Your task to perform on an android device: open app "Skype" (install if not already installed) and enter user name: "rumor@gmail.com" and password: "kinsman" Image 0: 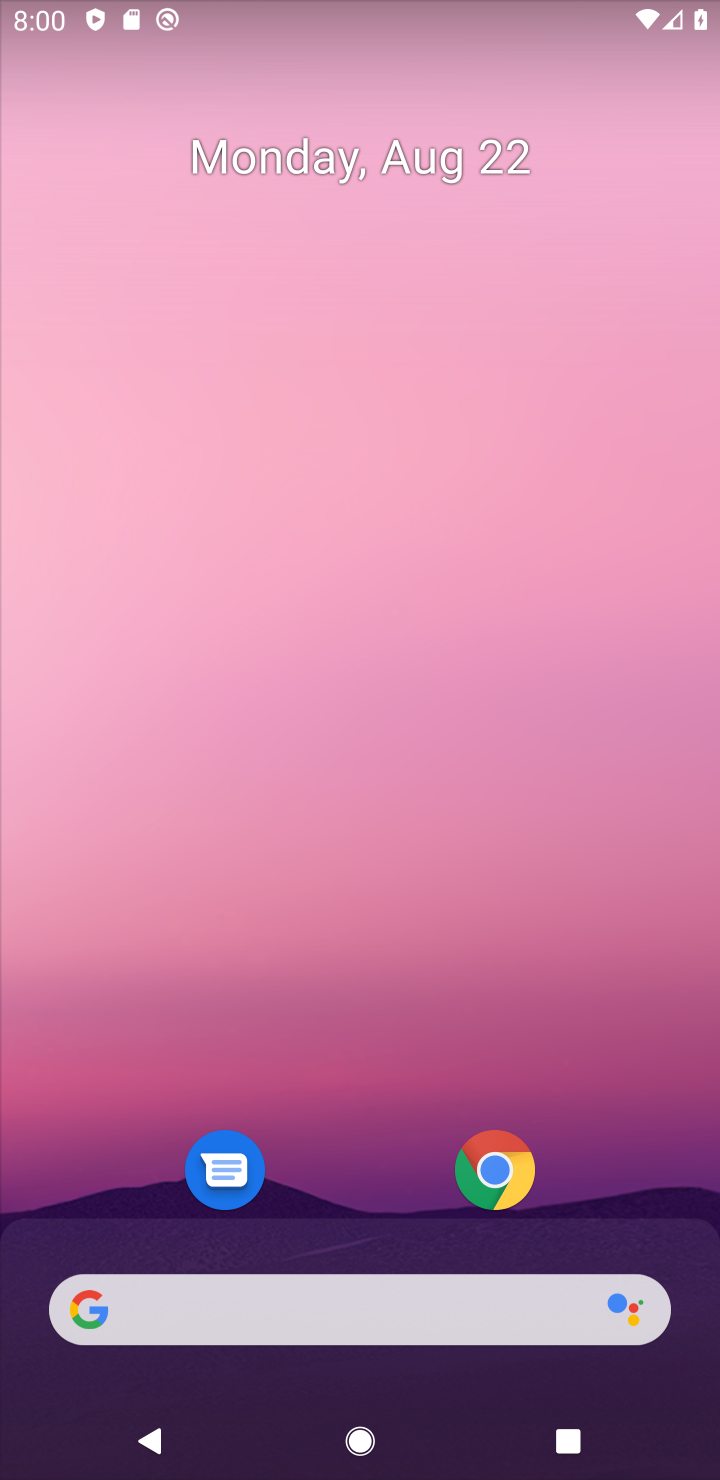
Step 0: drag from (302, 1212) to (316, 2)
Your task to perform on an android device: open app "Skype" (install if not already installed) and enter user name: "rumor@gmail.com" and password: "kinsman" Image 1: 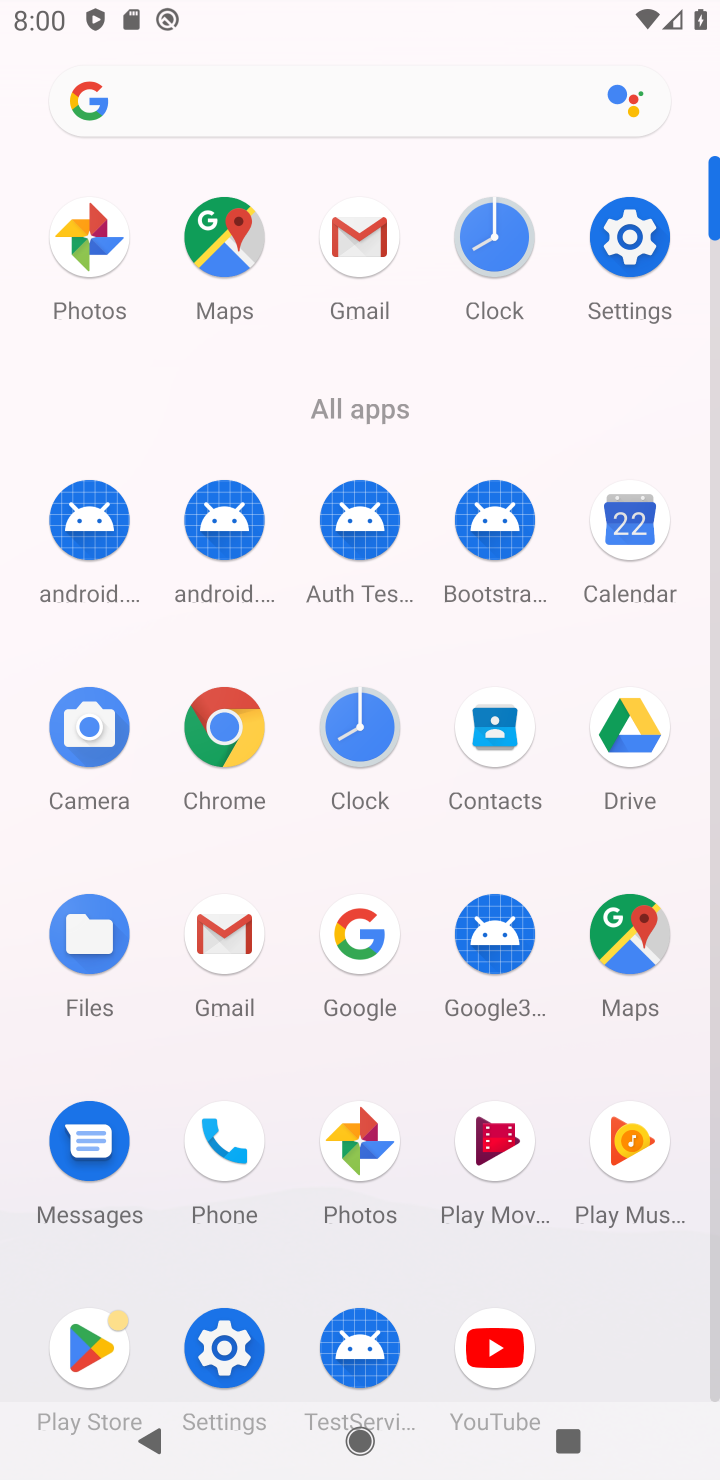
Step 1: click (87, 1400)
Your task to perform on an android device: open app "Skype" (install if not already installed) and enter user name: "rumor@gmail.com" and password: "kinsman" Image 2: 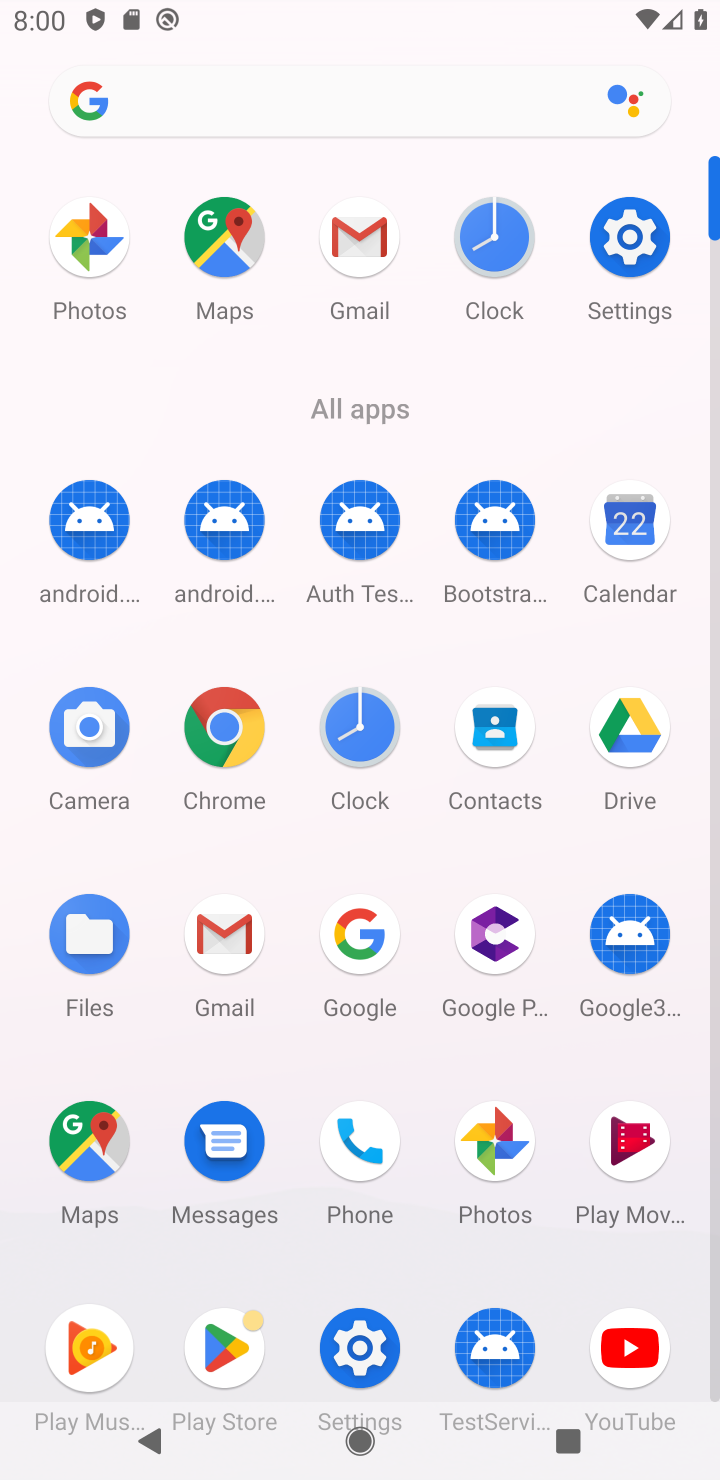
Step 2: click (254, 1342)
Your task to perform on an android device: open app "Skype" (install if not already installed) and enter user name: "rumor@gmail.com" and password: "kinsman" Image 3: 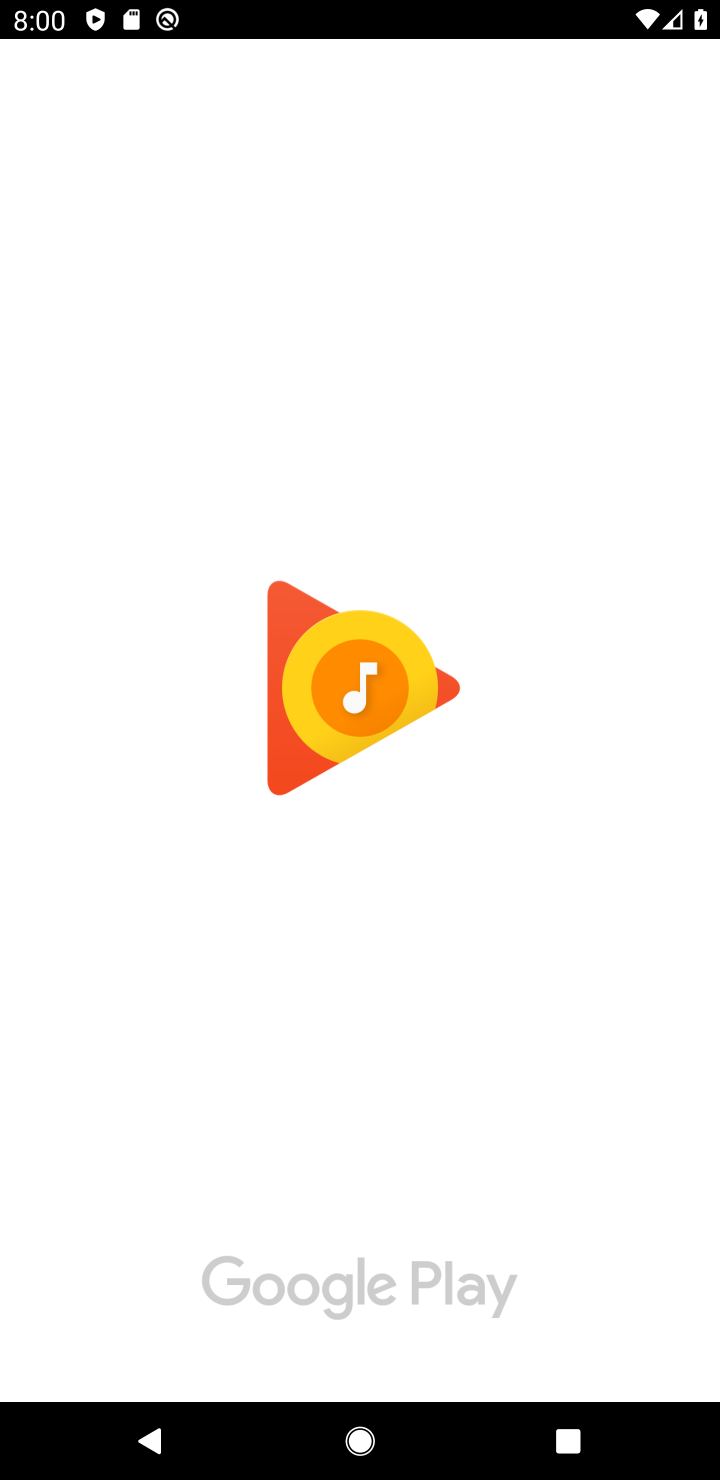
Step 3: press back button
Your task to perform on an android device: open app "Skype" (install if not already installed) and enter user name: "rumor@gmail.com" and password: "kinsman" Image 4: 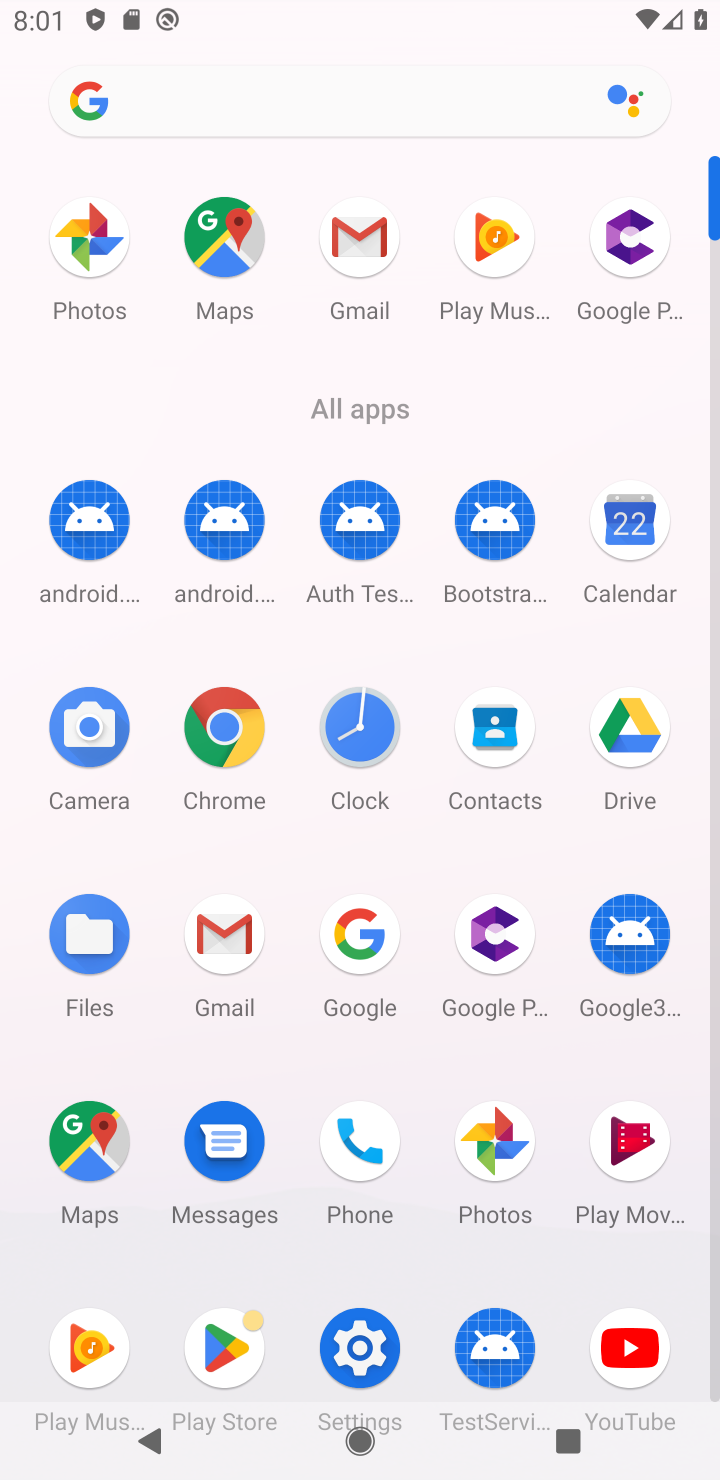
Step 4: click (224, 1321)
Your task to perform on an android device: open app "Skype" (install if not already installed) and enter user name: "rumor@gmail.com" and password: "kinsman" Image 5: 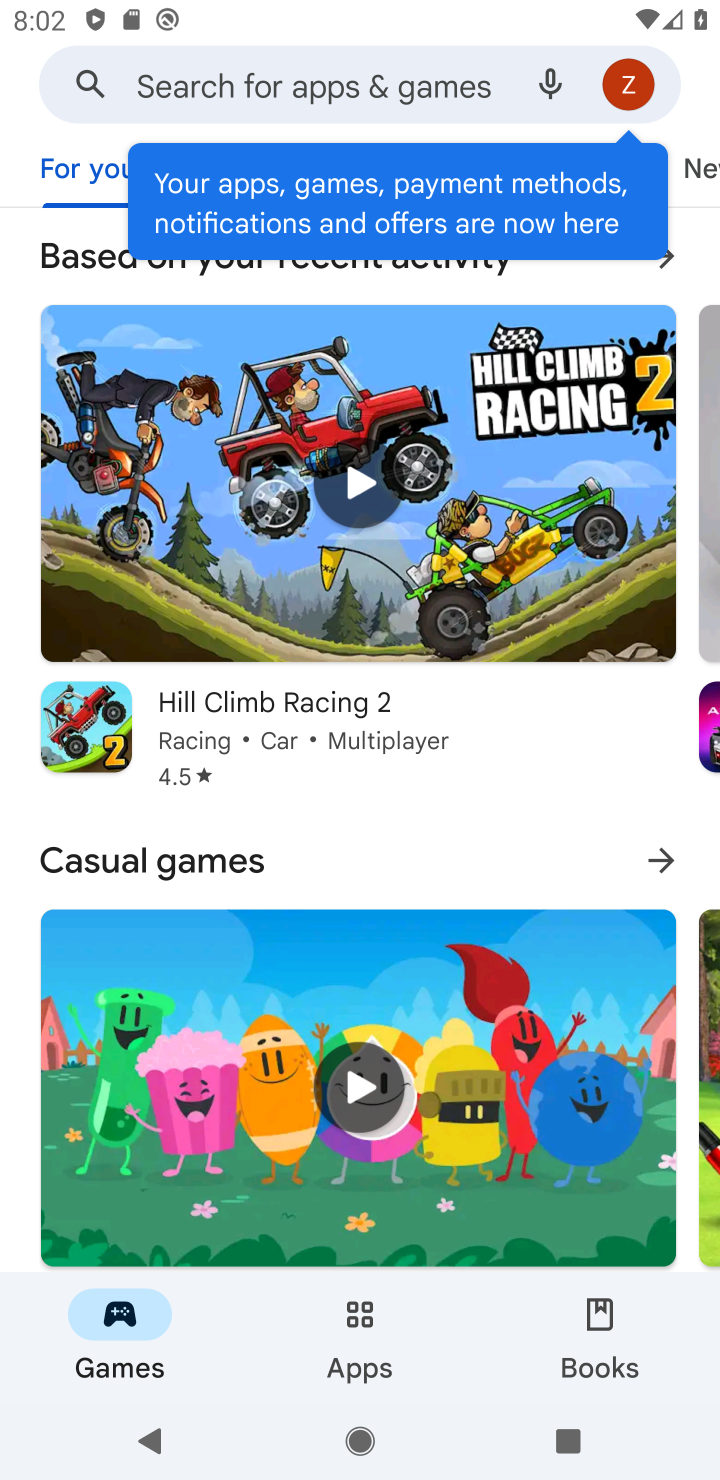
Step 5: click (207, 61)
Your task to perform on an android device: open app "Skype" (install if not already installed) and enter user name: "rumor@gmail.com" and password: "kinsman" Image 6: 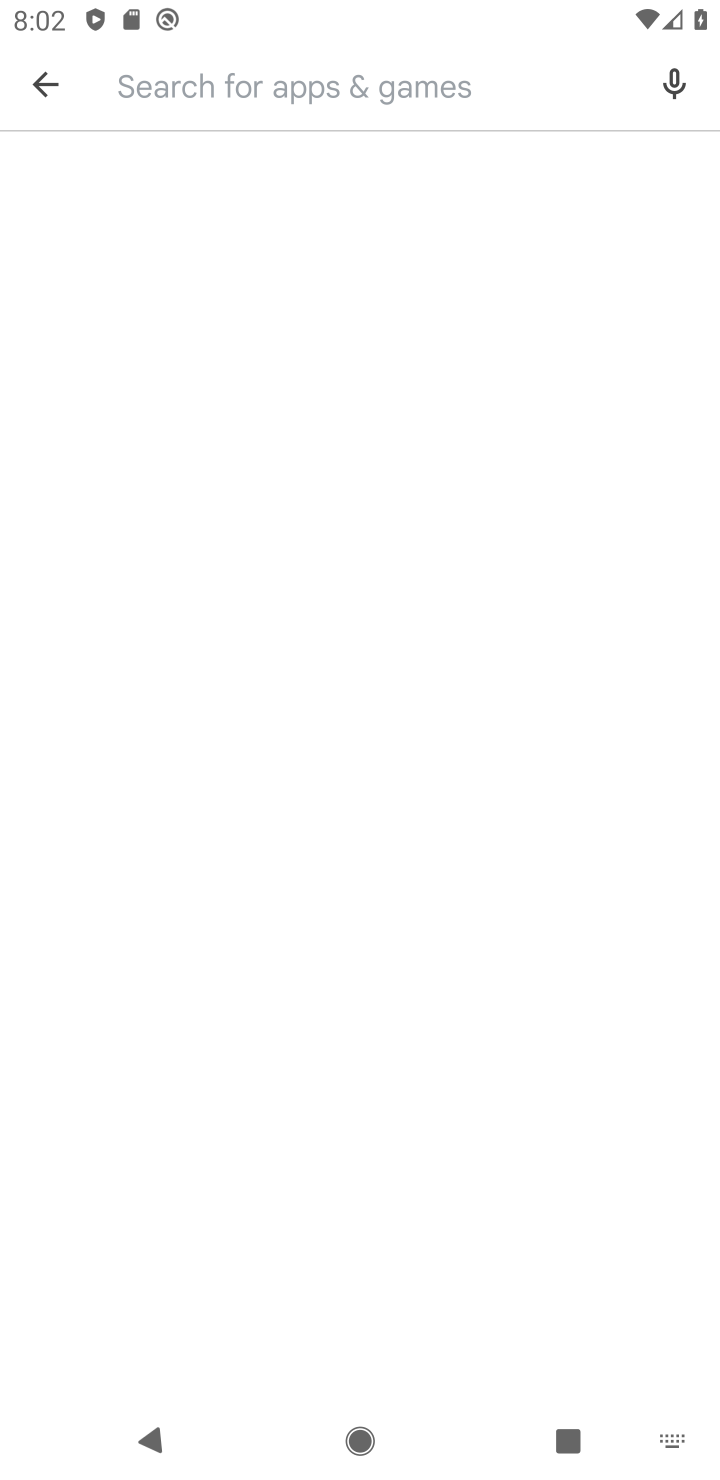
Step 6: click (224, 78)
Your task to perform on an android device: open app "Skype" (install if not already installed) and enter user name: "rumor@gmail.com" and password: "kinsman" Image 7: 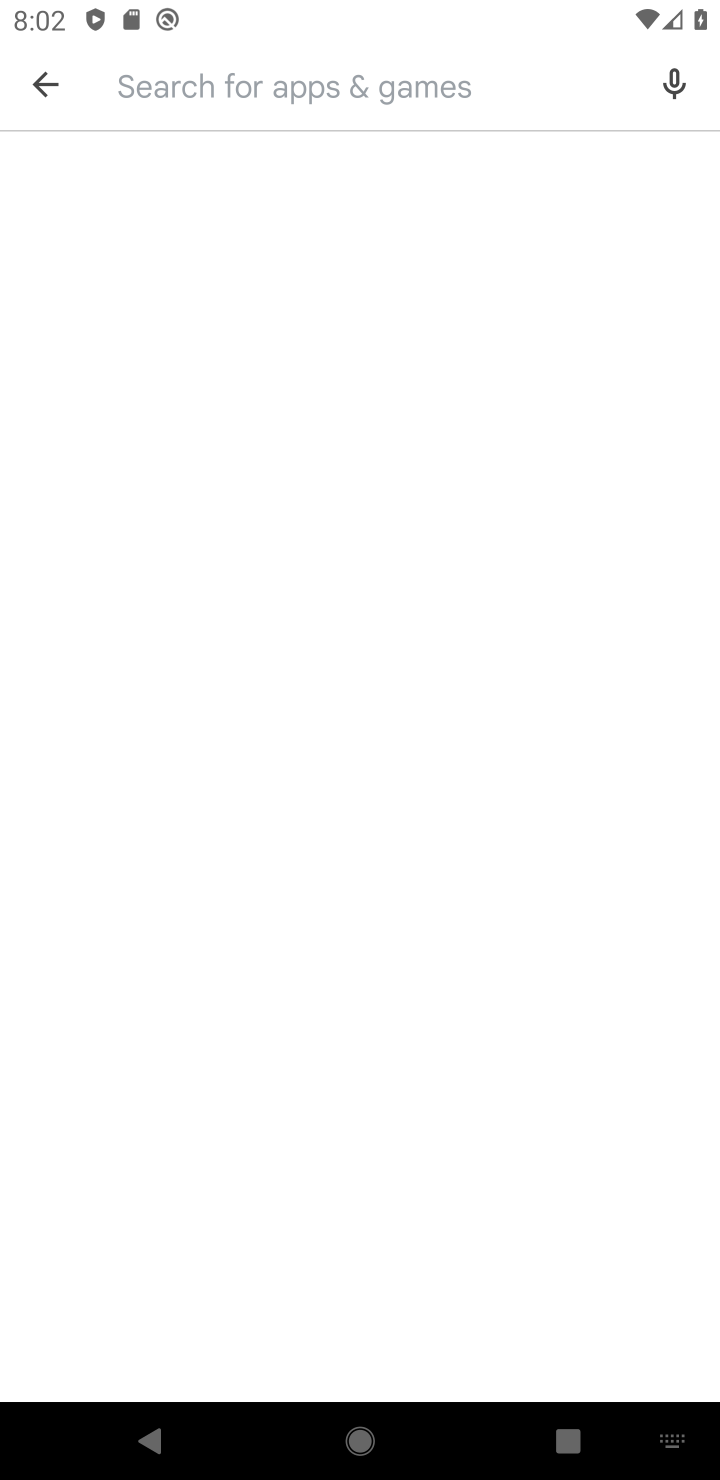
Step 7: click (308, 77)
Your task to perform on an android device: open app "Skype" (install if not already installed) and enter user name: "rumor@gmail.com" and password: "kinsman" Image 8: 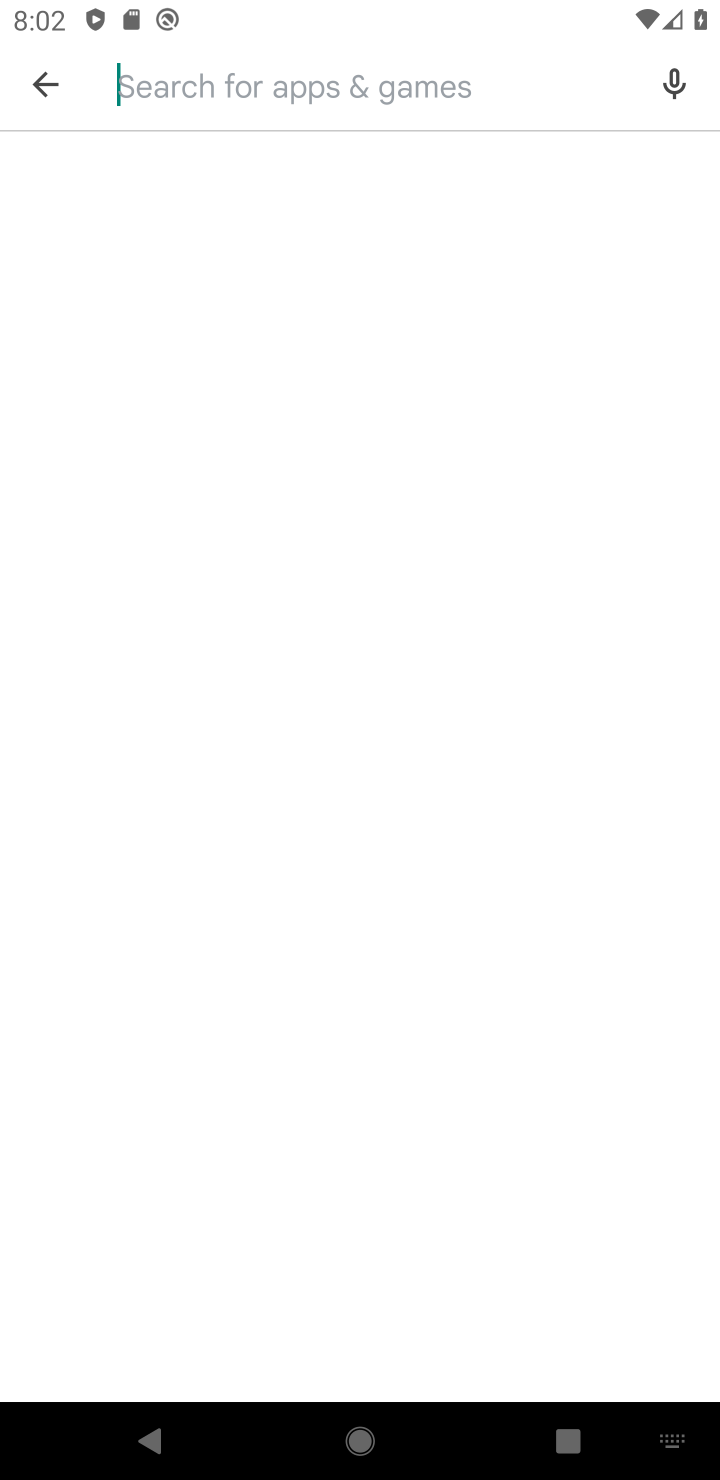
Step 8: type "skype"
Your task to perform on an android device: open app "Skype" (install if not already installed) and enter user name: "rumor@gmail.com" and password: "kinsman" Image 9: 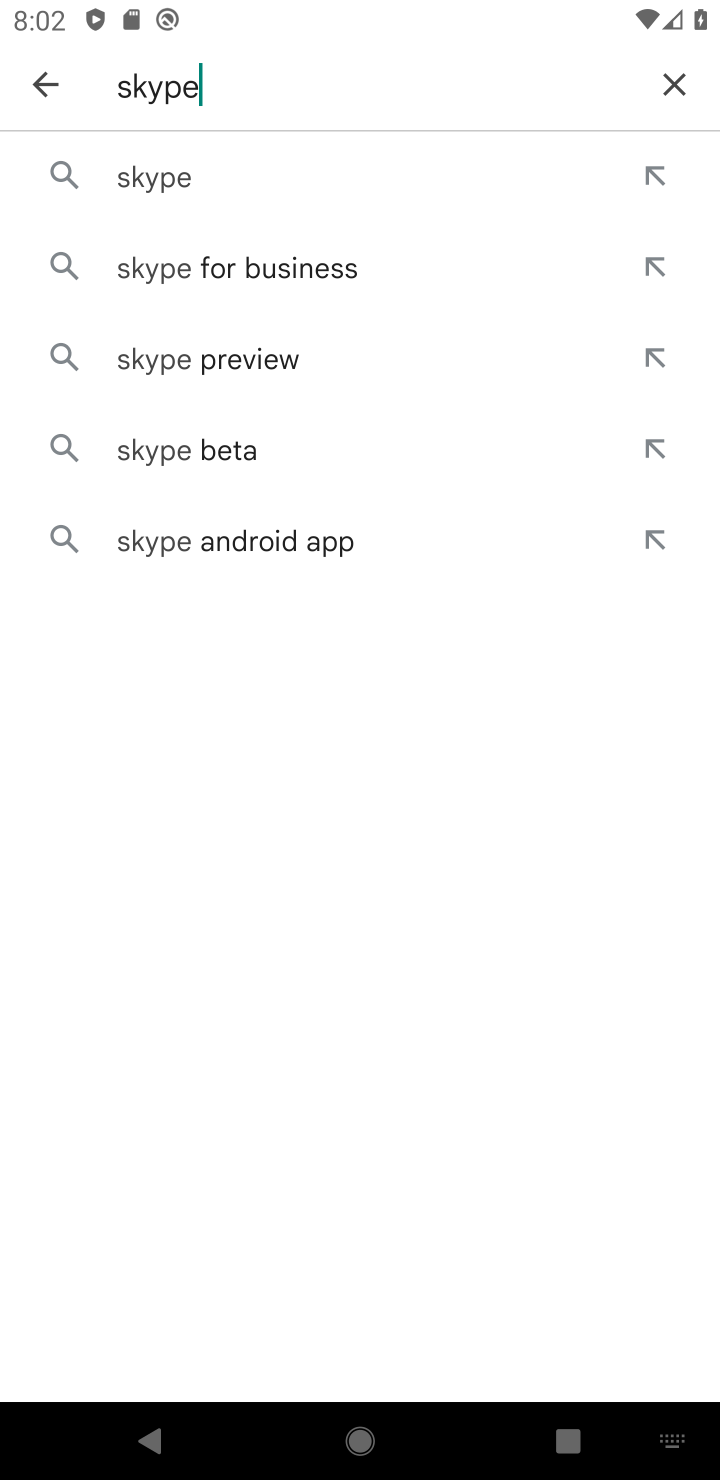
Step 9: click (186, 179)
Your task to perform on an android device: open app "Skype" (install if not already installed) and enter user name: "rumor@gmail.com" and password: "kinsman" Image 10: 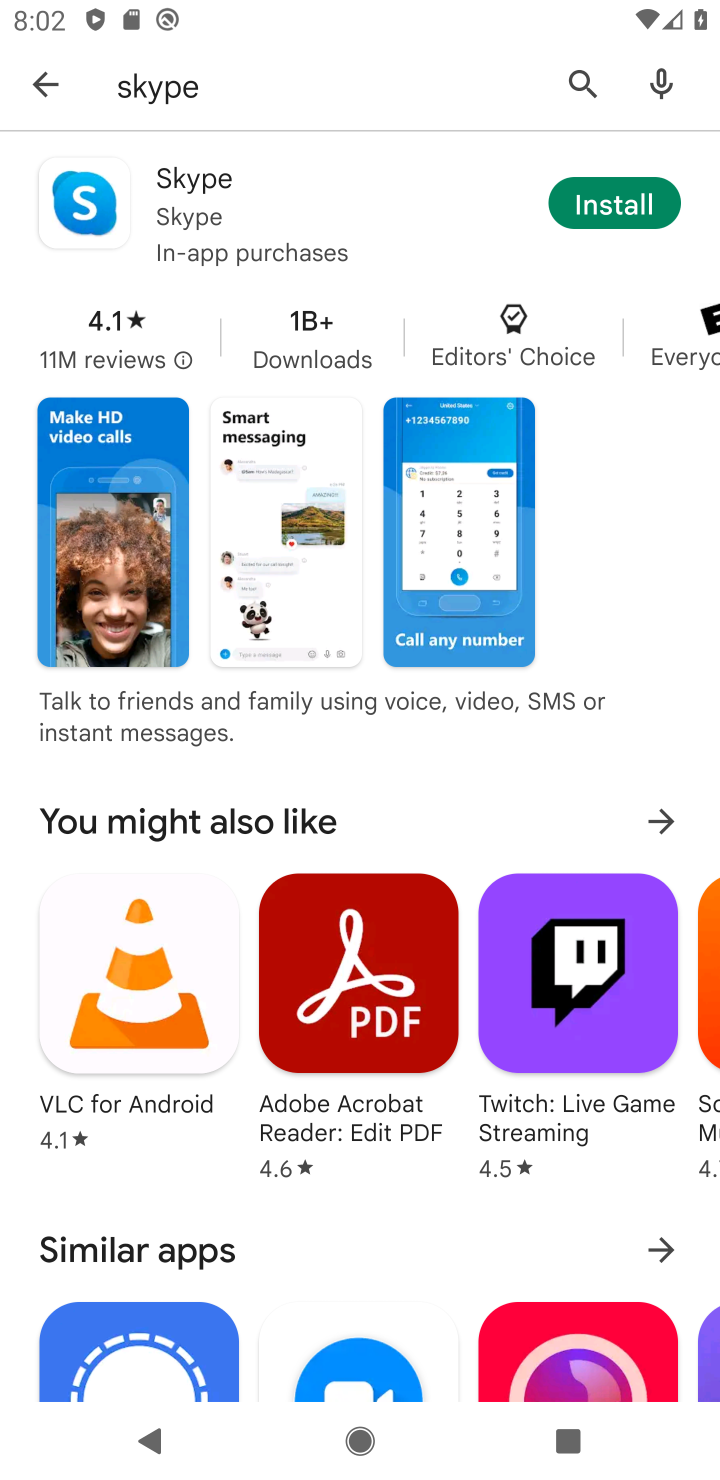
Step 10: click (618, 220)
Your task to perform on an android device: open app "Skype" (install if not already installed) and enter user name: "rumor@gmail.com" and password: "kinsman" Image 11: 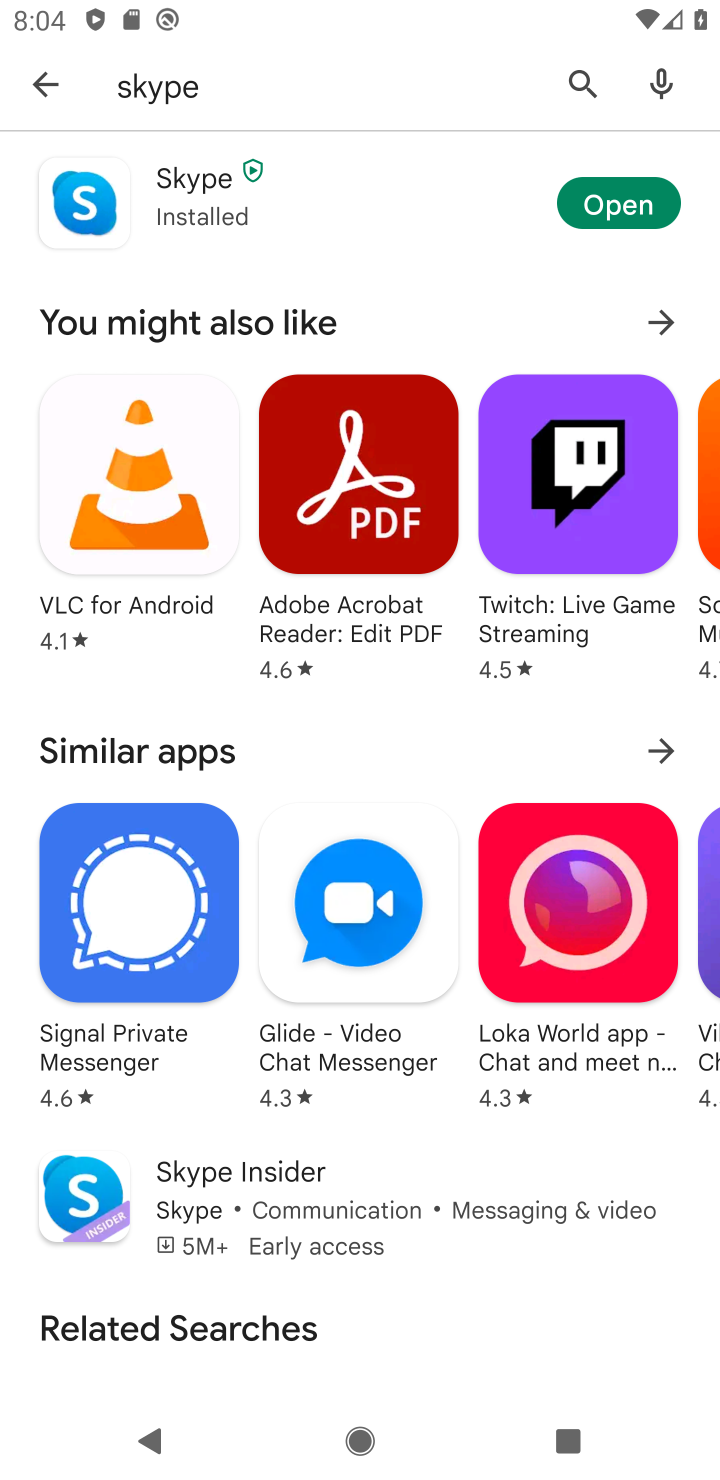
Step 11: click (614, 191)
Your task to perform on an android device: open app "Skype" (install if not already installed) and enter user name: "rumor@gmail.com" and password: "kinsman" Image 12: 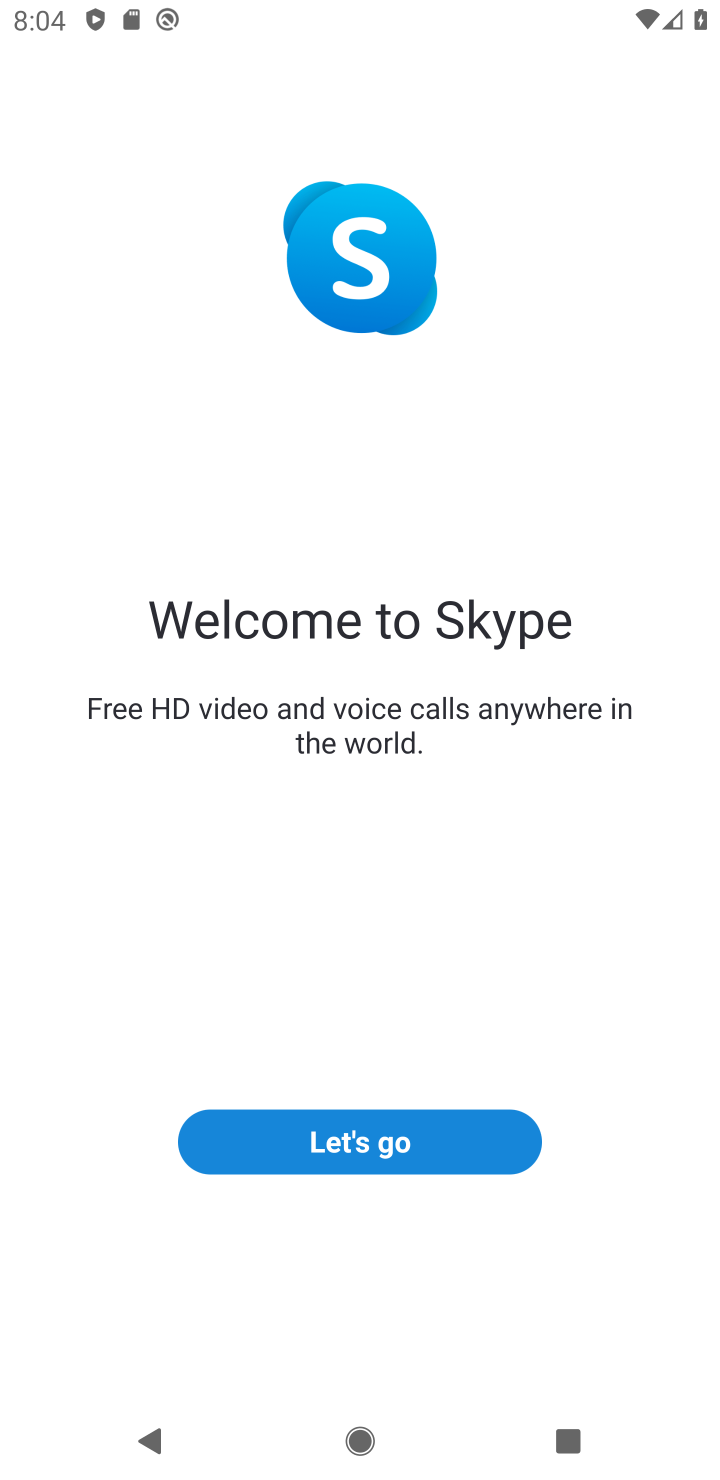
Step 12: click (343, 1151)
Your task to perform on an android device: open app "Skype" (install if not already installed) and enter user name: "rumor@gmail.com" and password: "kinsman" Image 13: 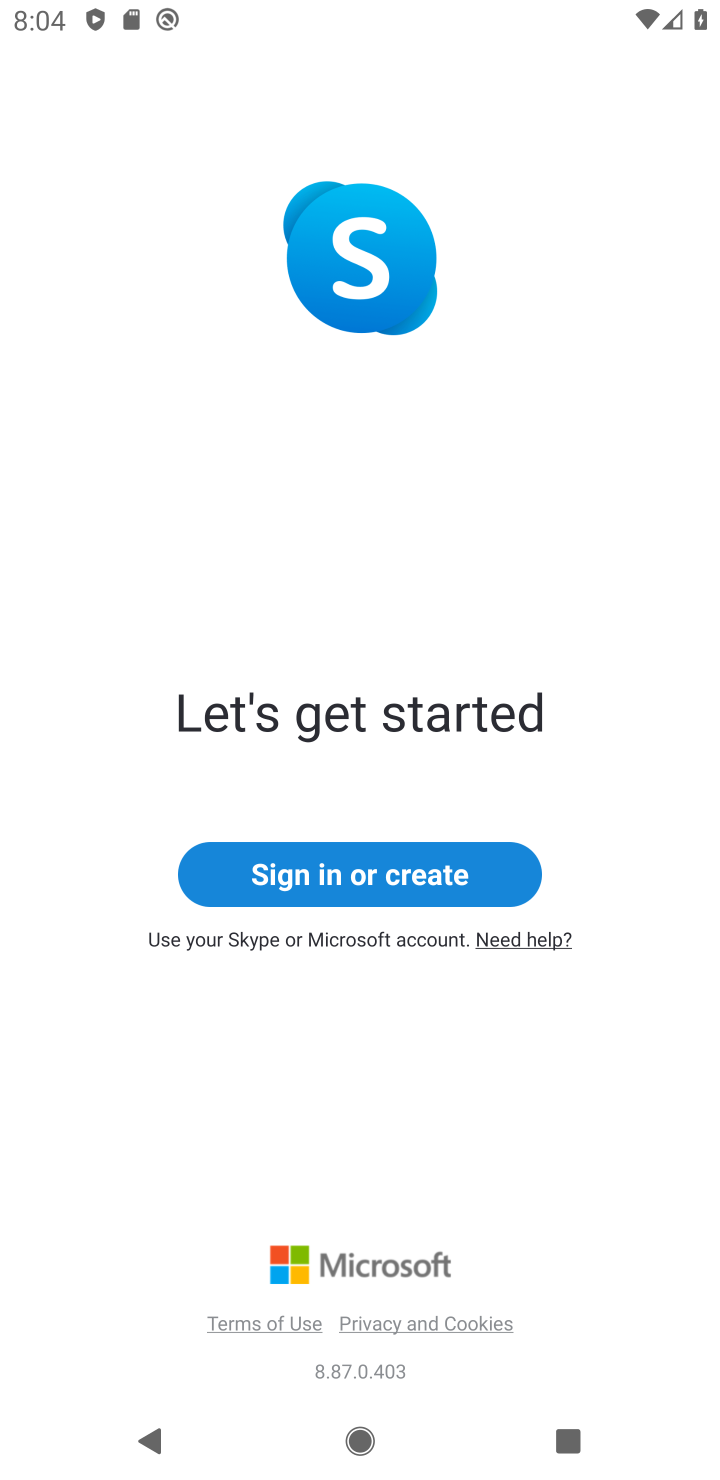
Step 13: click (362, 851)
Your task to perform on an android device: open app "Skype" (install if not already installed) and enter user name: "rumor@gmail.com" and password: "kinsman" Image 14: 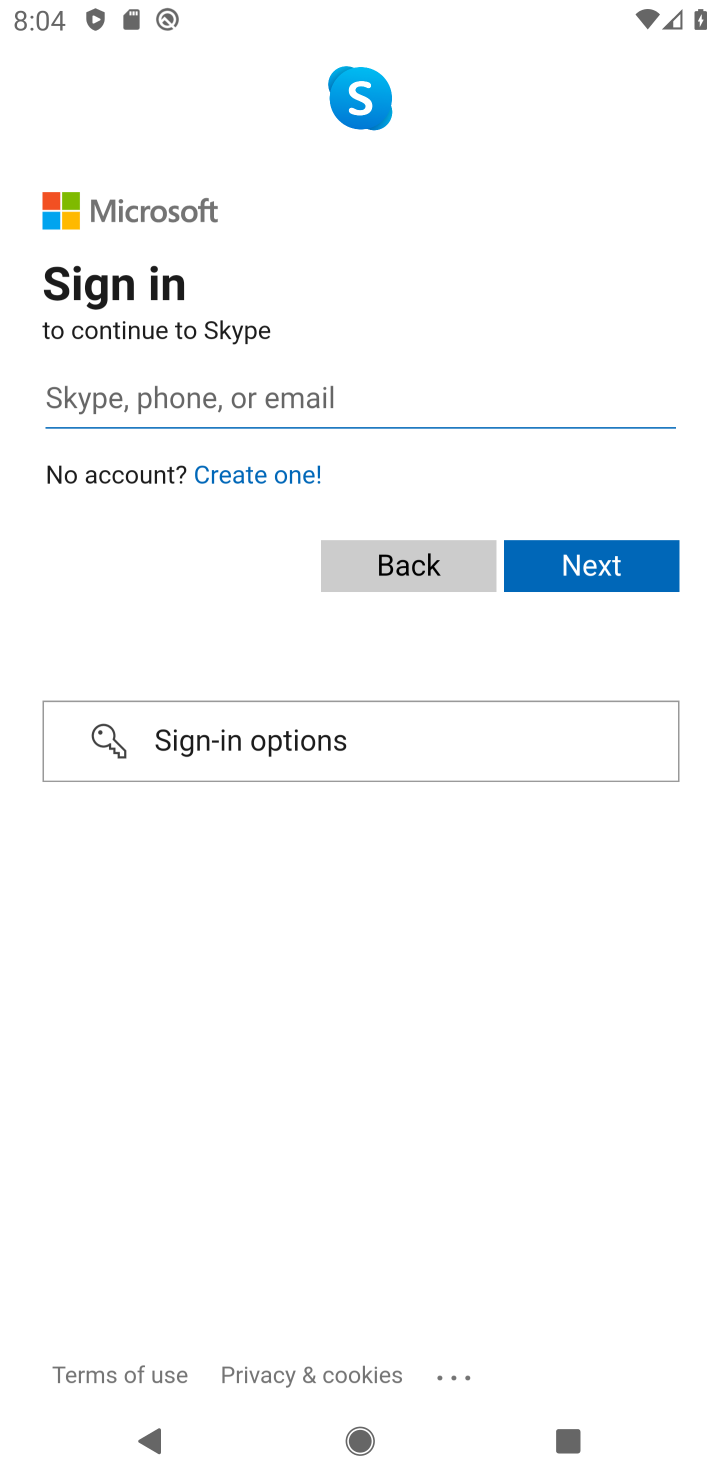
Step 14: click (254, 406)
Your task to perform on an android device: open app "Skype" (install if not already installed) and enter user name: "rumor@gmail.com" and password: "kinsman" Image 15: 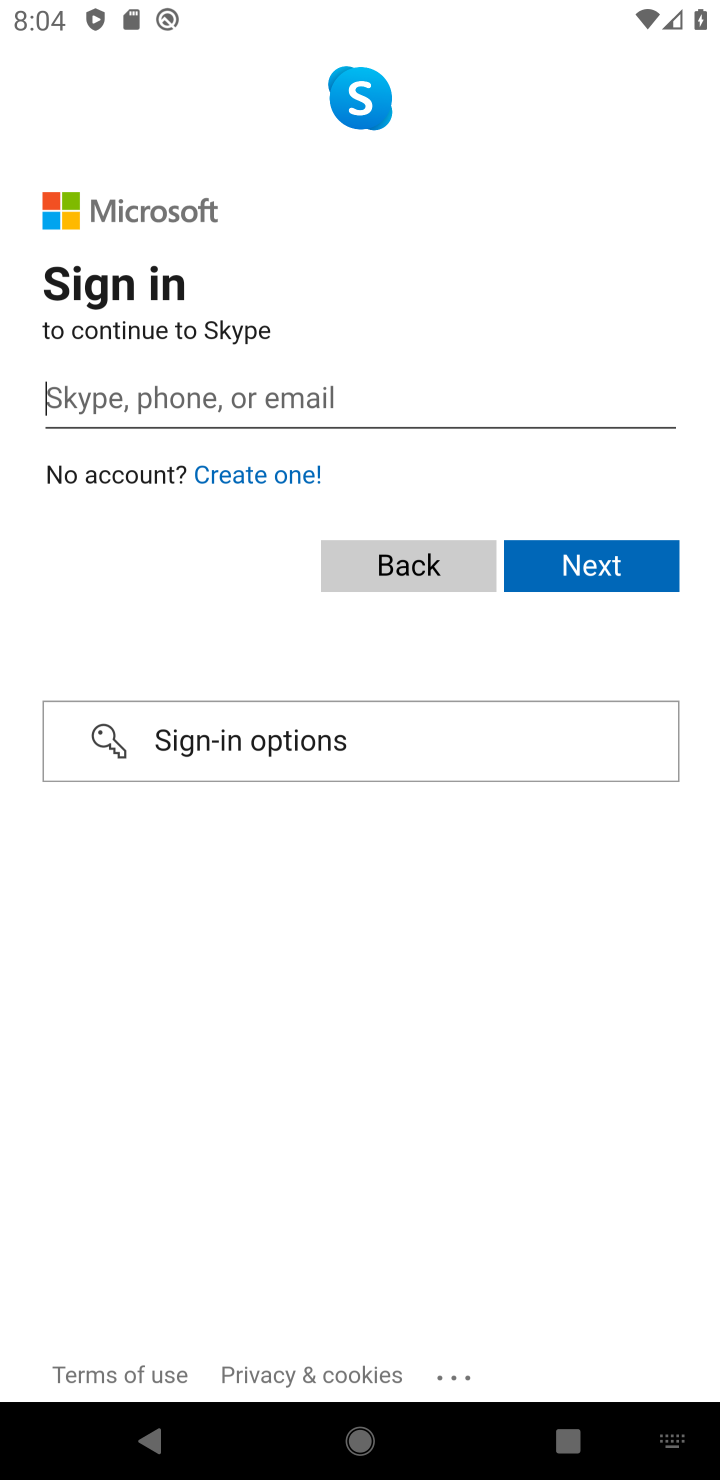
Step 15: click (184, 404)
Your task to perform on an android device: open app "Skype" (install if not already installed) and enter user name: "rumor@gmail.com" and password: "kinsman" Image 16: 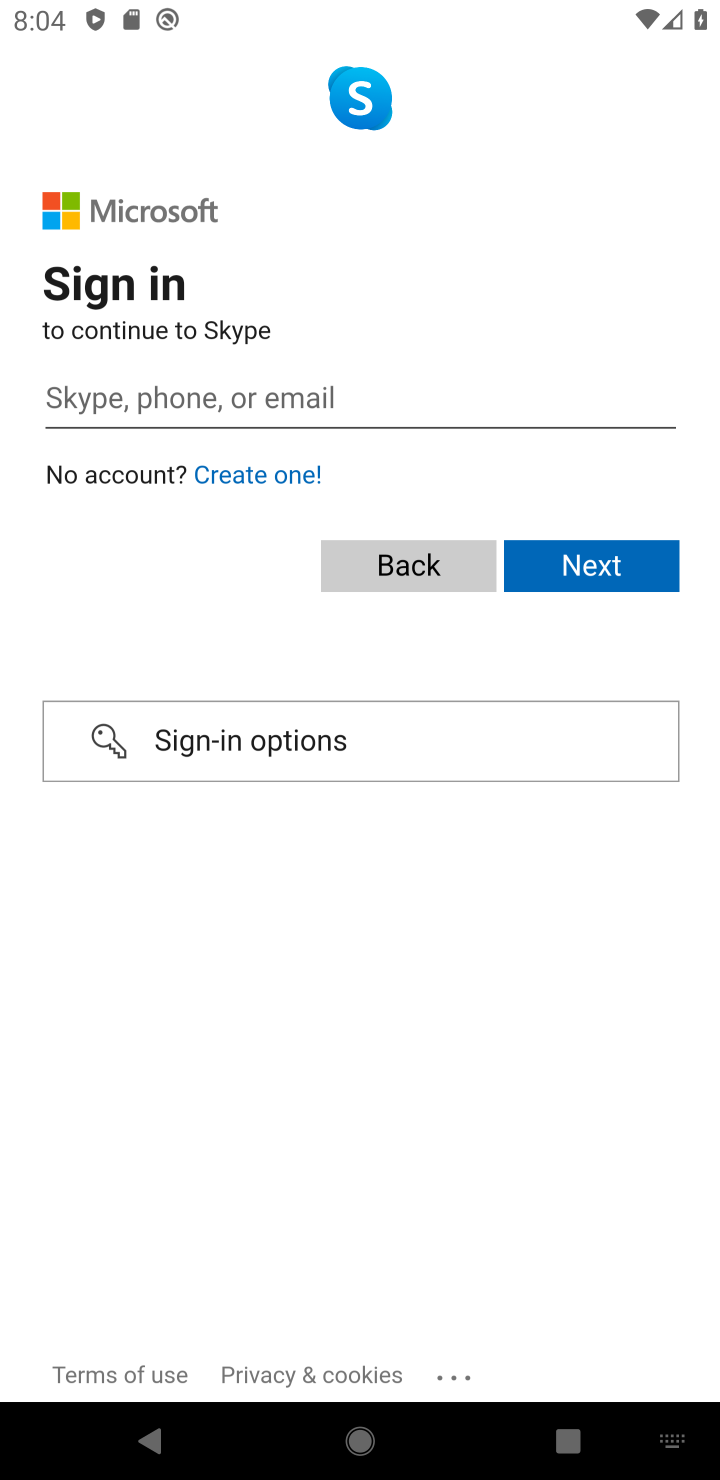
Step 16: type "rumor@gmail.com"
Your task to perform on an android device: open app "Skype" (install if not already installed) and enter user name: "rumor@gmail.com" and password: "kinsman" Image 17: 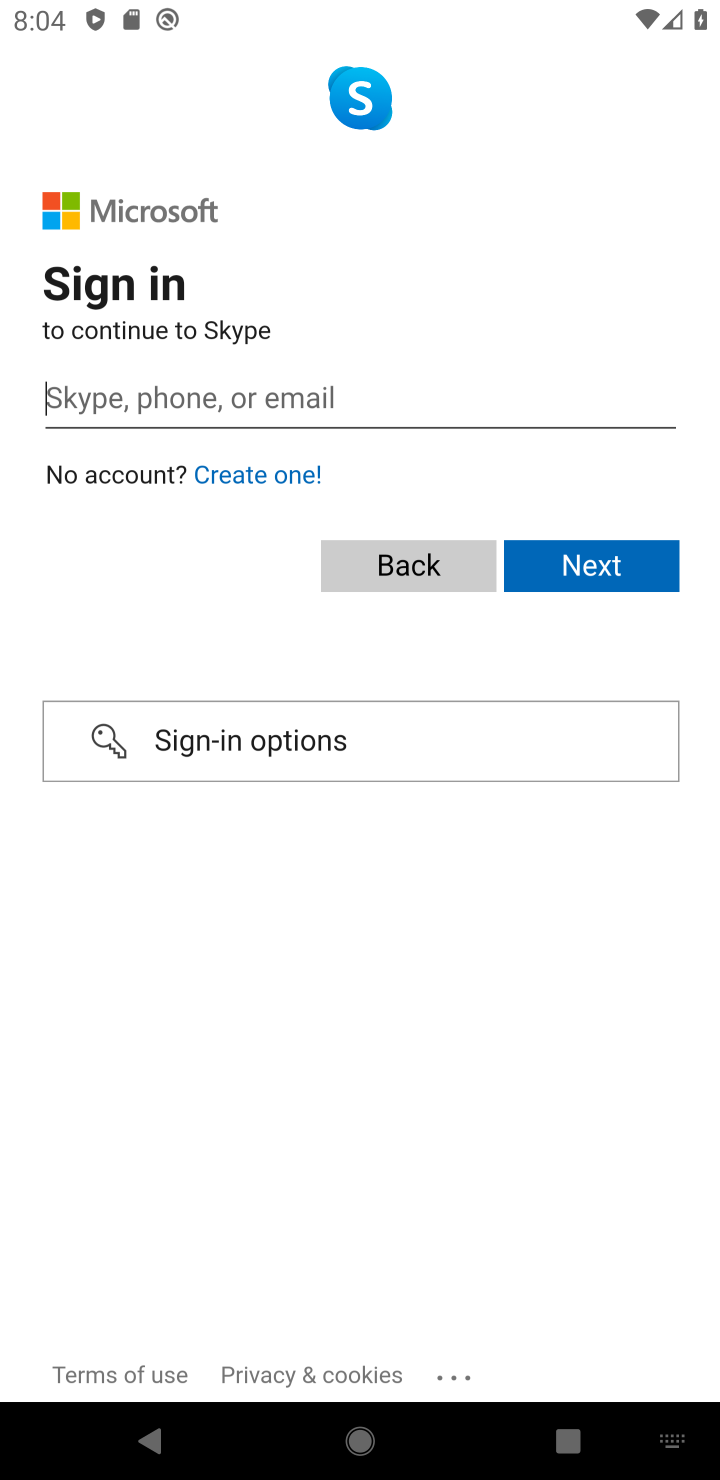
Step 17: click (352, 1157)
Your task to perform on an android device: open app "Skype" (install if not already installed) and enter user name: "rumor@gmail.com" and password: "kinsman" Image 18: 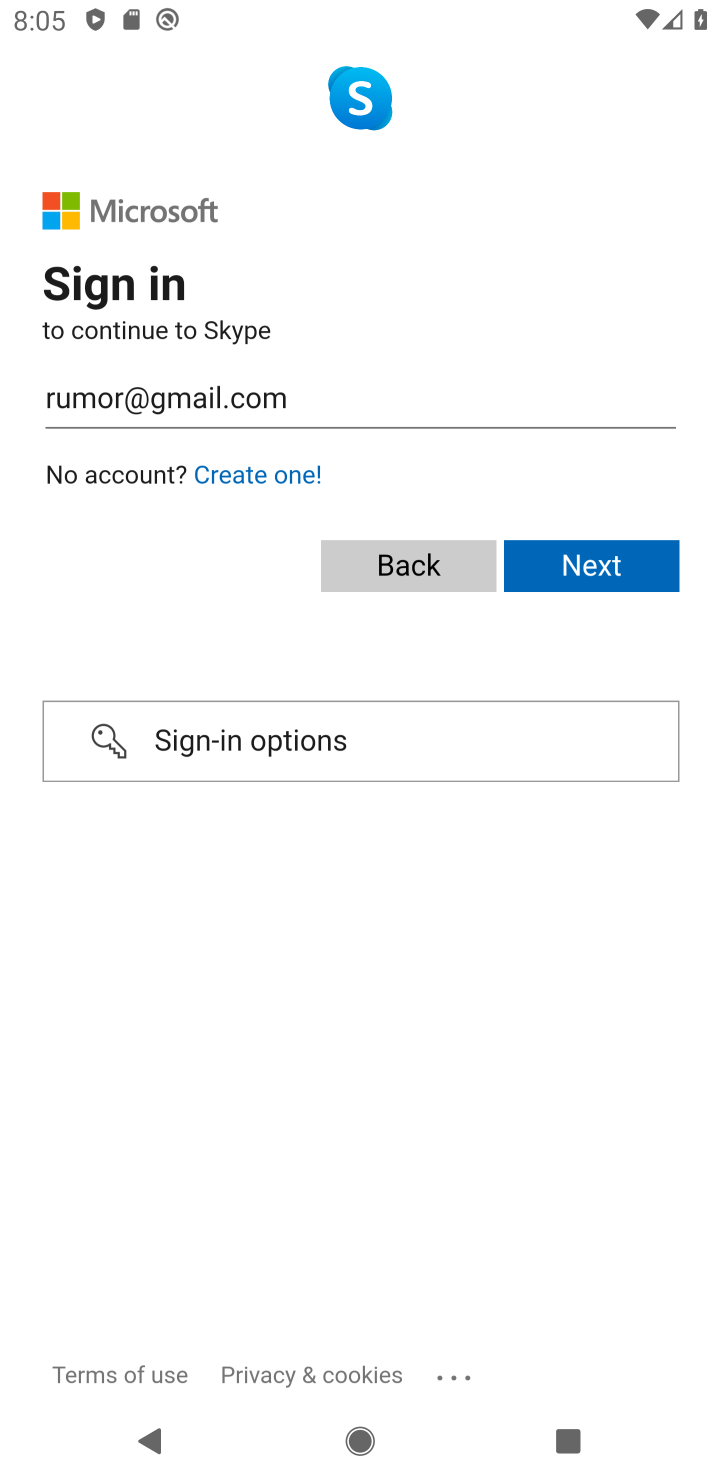
Step 18: click (641, 549)
Your task to perform on an android device: open app "Skype" (install if not already installed) and enter user name: "rumor@gmail.com" and password: "kinsman" Image 19: 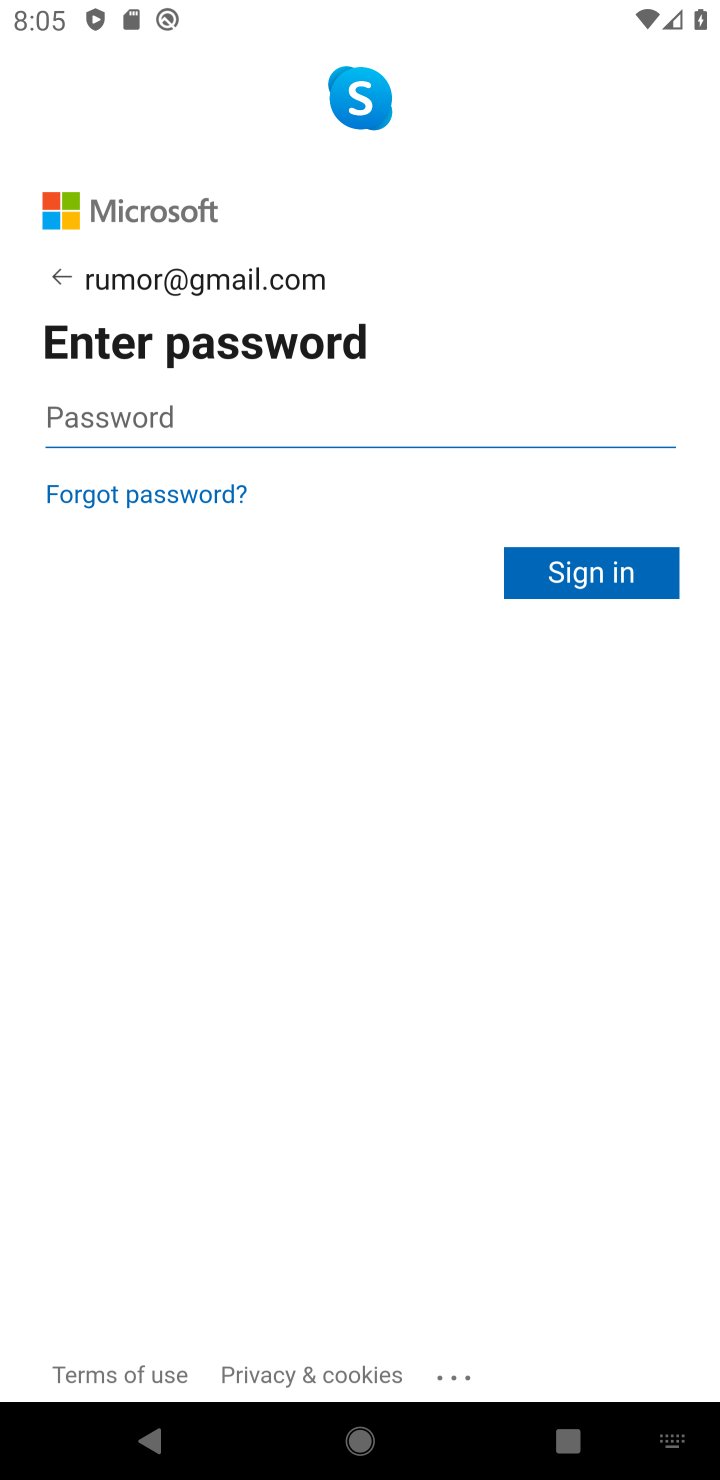
Step 19: click (112, 399)
Your task to perform on an android device: open app "Skype" (install if not already installed) and enter user name: "rumor@gmail.com" and password: "kinsman" Image 20: 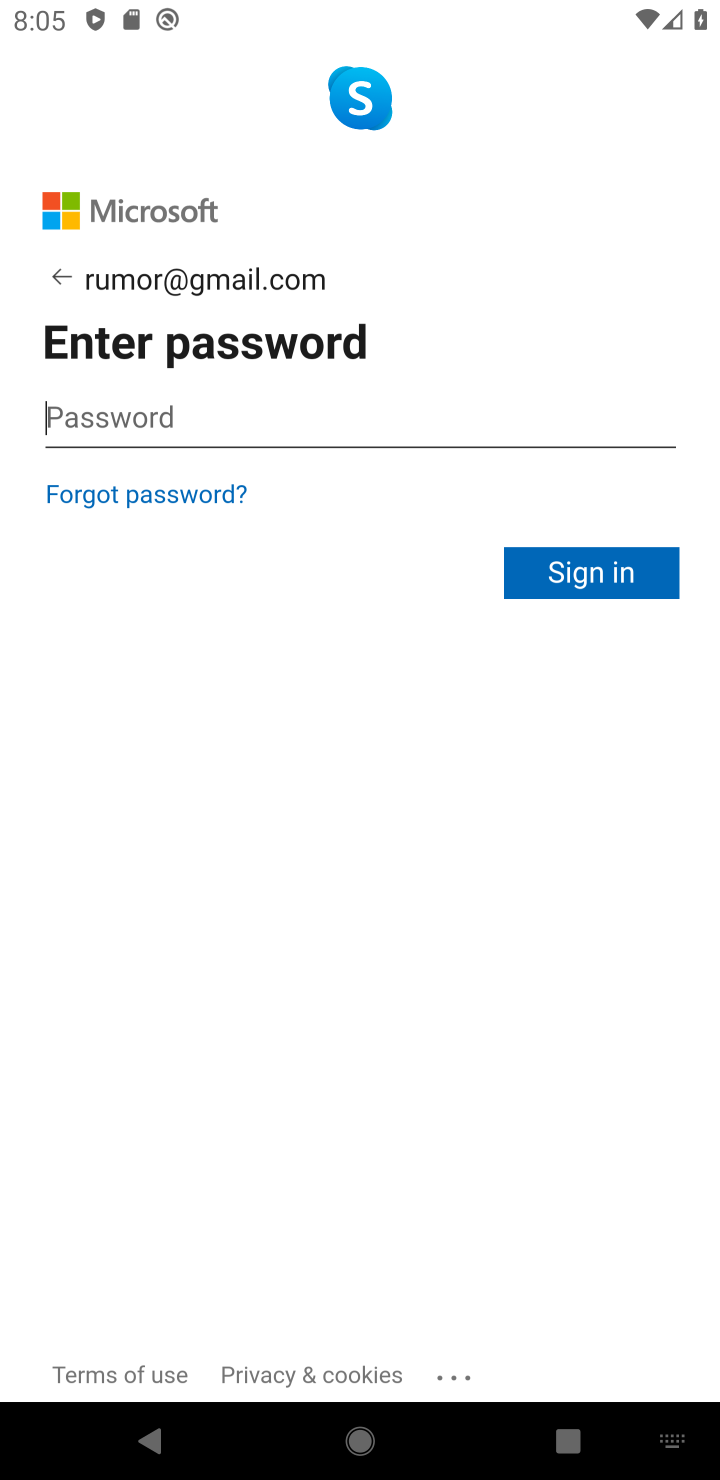
Step 20: click (119, 396)
Your task to perform on an android device: open app "Skype" (install if not already installed) and enter user name: "rumor@gmail.com" and password: "kinsman" Image 21: 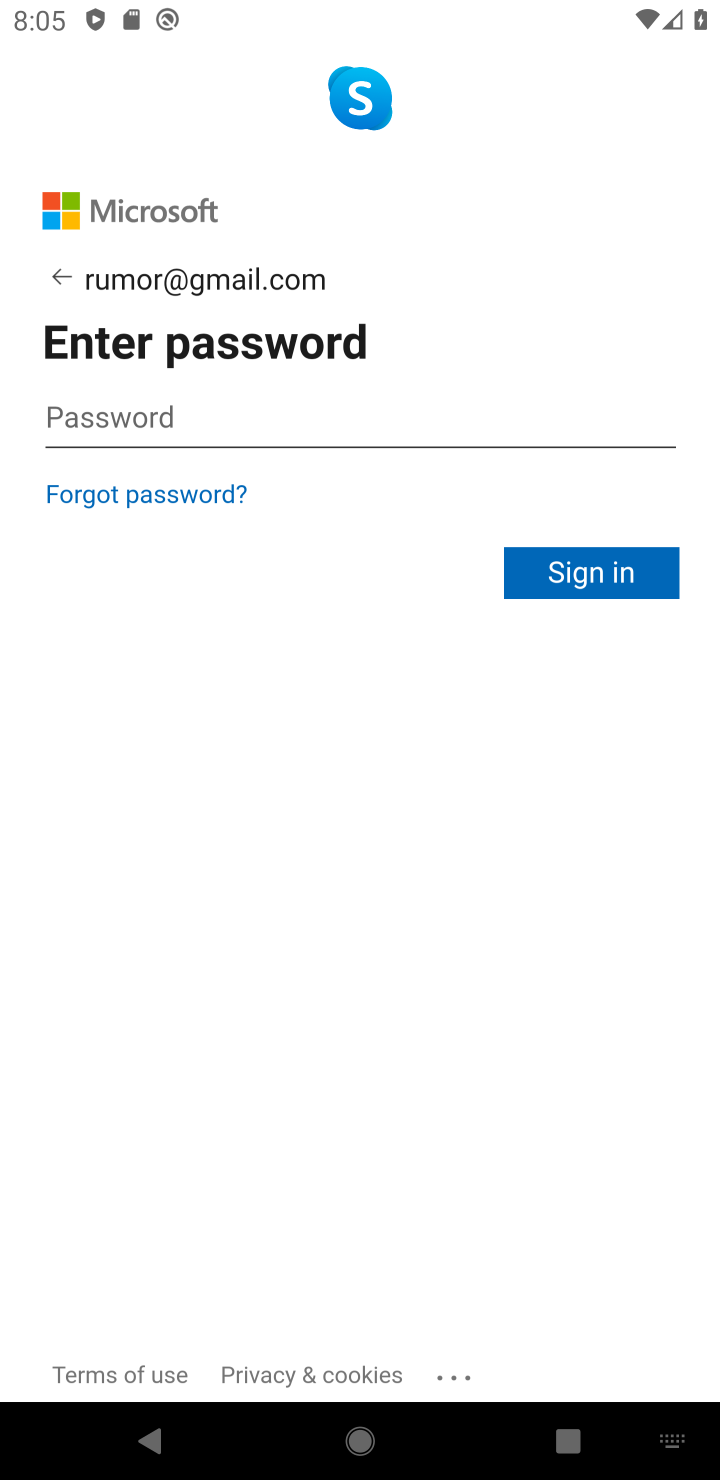
Step 21: type "kinsman"
Your task to perform on an android device: open app "Skype" (install if not already installed) and enter user name: "rumor@gmail.com" and password: "kinsman" Image 22: 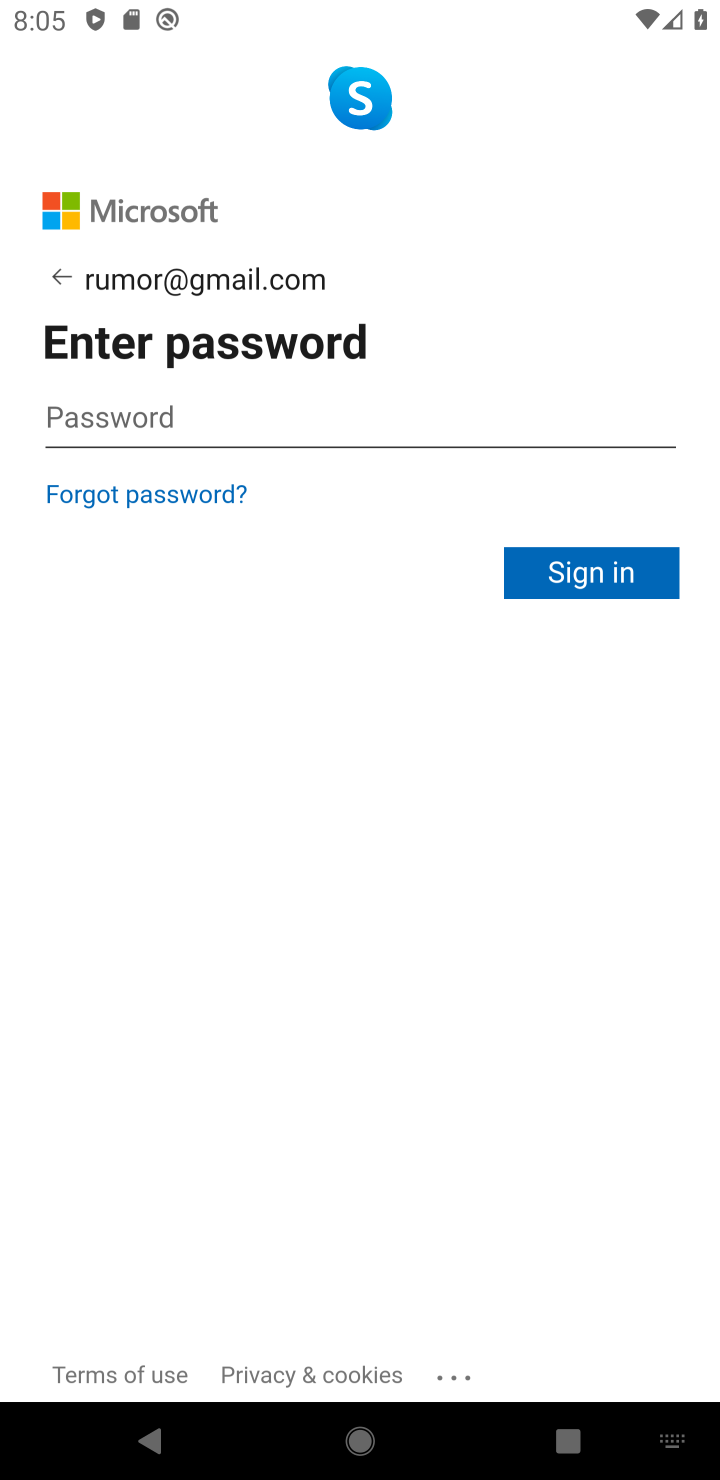
Step 22: click (456, 1036)
Your task to perform on an android device: open app "Skype" (install if not already installed) and enter user name: "rumor@gmail.com" and password: "kinsman" Image 23: 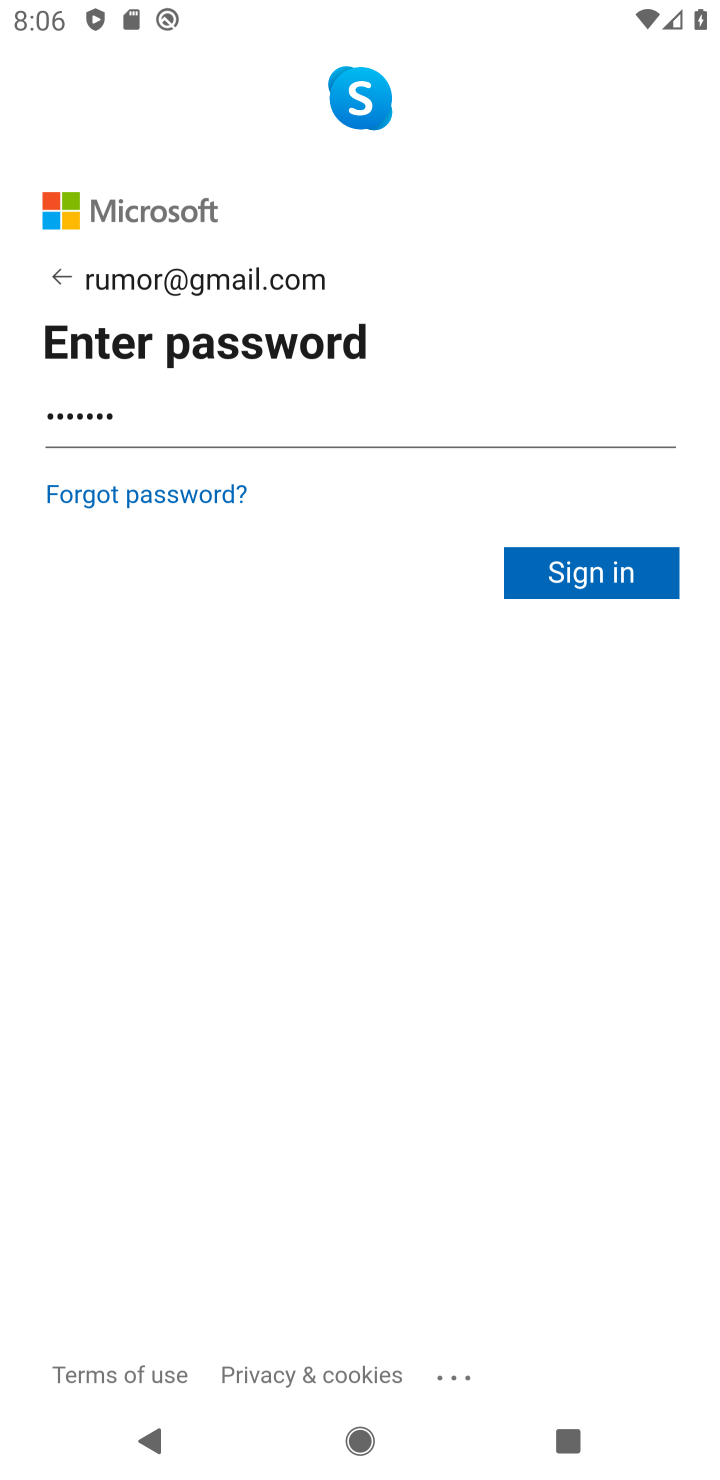
Step 23: task complete